Your task to perform on an android device: read, delete, or share a saved page in the chrome app Image 0: 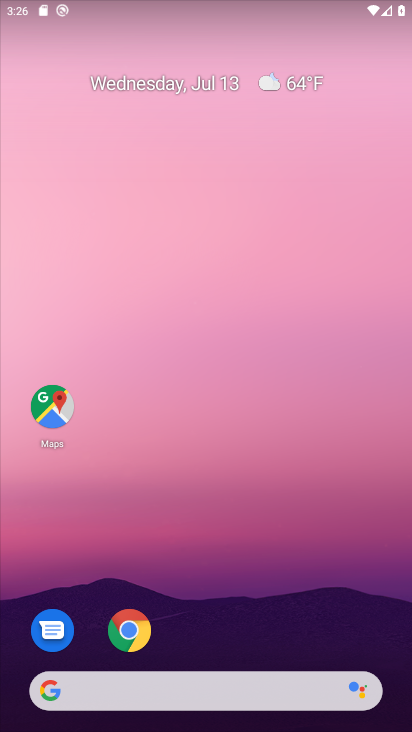
Step 0: click (148, 625)
Your task to perform on an android device: read, delete, or share a saved page in the chrome app Image 1: 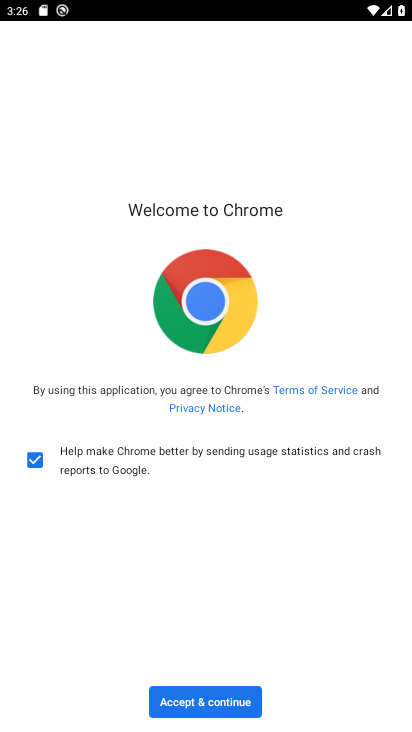
Step 1: click (213, 692)
Your task to perform on an android device: read, delete, or share a saved page in the chrome app Image 2: 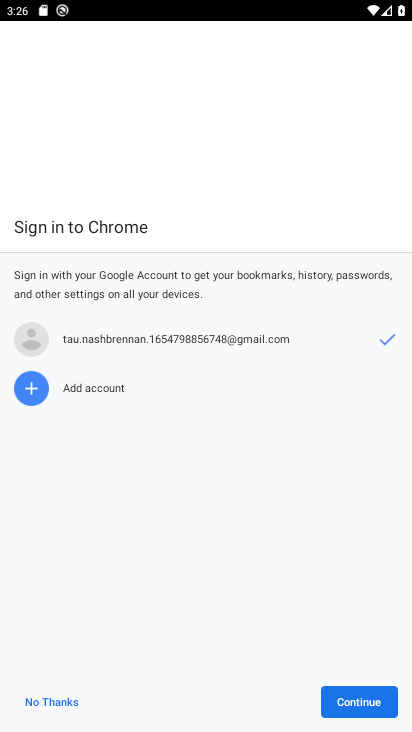
Step 2: click (369, 697)
Your task to perform on an android device: read, delete, or share a saved page in the chrome app Image 3: 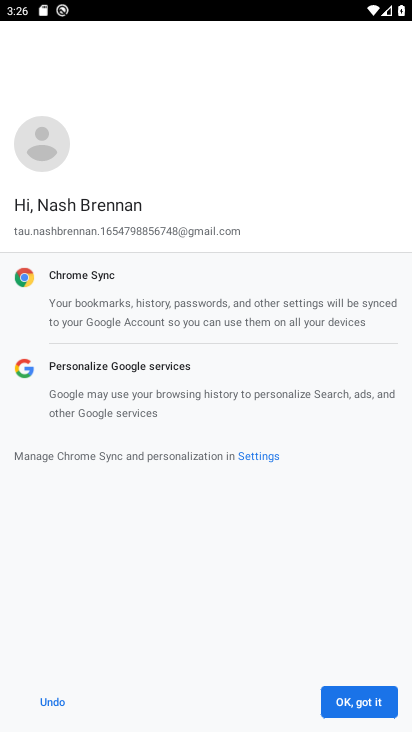
Step 3: click (369, 697)
Your task to perform on an android device: read, delete, or share a saved page in the chrome app Image 4: 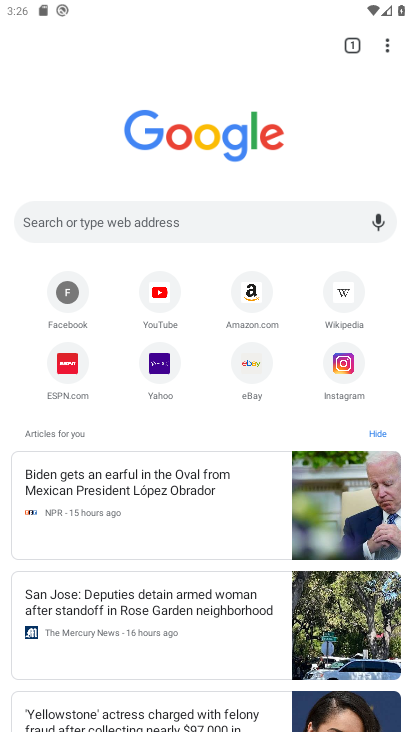
Step 4: task complete